Your task to perform on an android device: Open privacy settings Image 0: 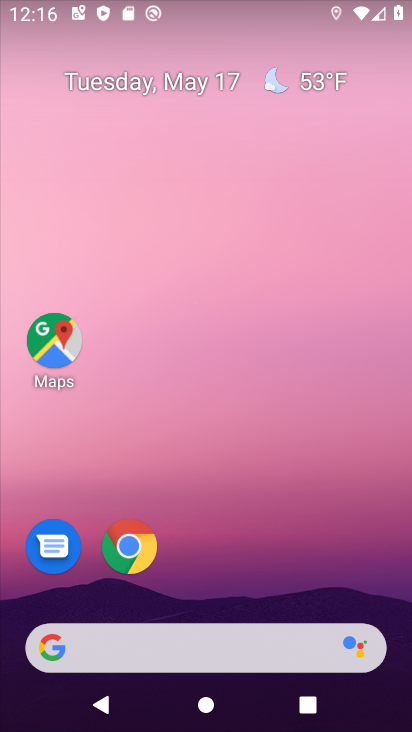
Step 0: click (139, 550)
Your task to perform on an android device: Open privacy settings Image 1: 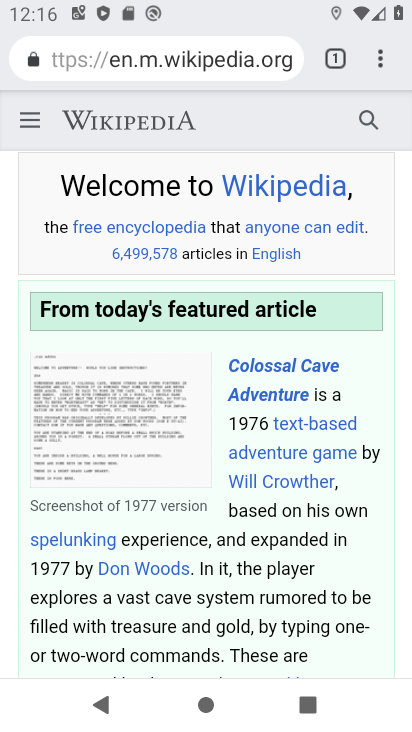
Step 1: click (376, 55)
Your task to perform on an android device: Open privacy settings Image 2: 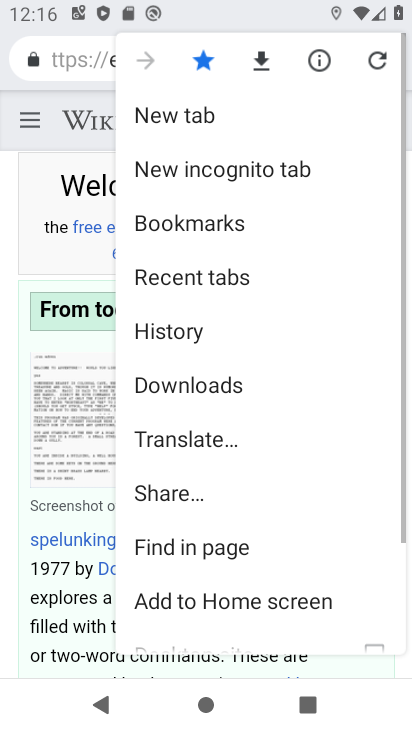
Step 2: drag from (209, 508) to (244, 90)
Your task to perform on an android device: Open privacy settings Image 3: 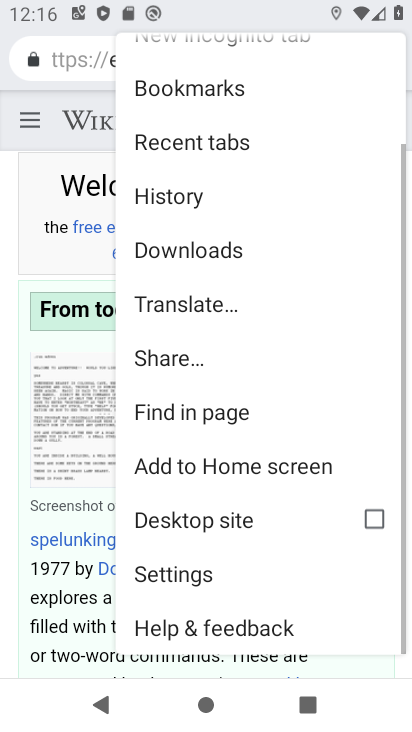
Step 3: click (214, 574)
Your task to perform on an android device: Open privacy settings Image 4: 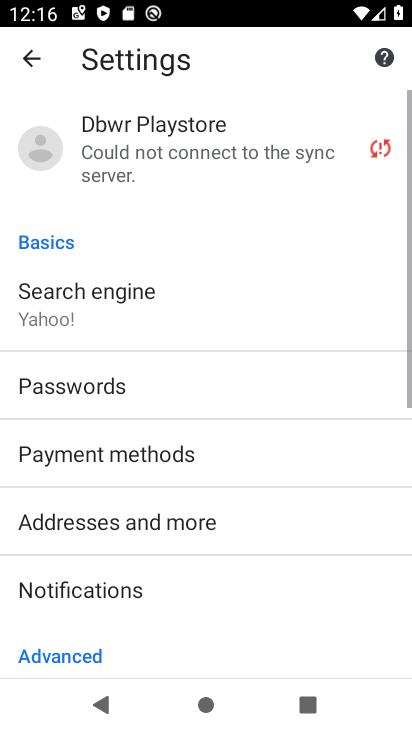
Step 4: drag from (207, 570) to (220, 256)
Your task to perform on an android device: Open privacy settings Image 5: 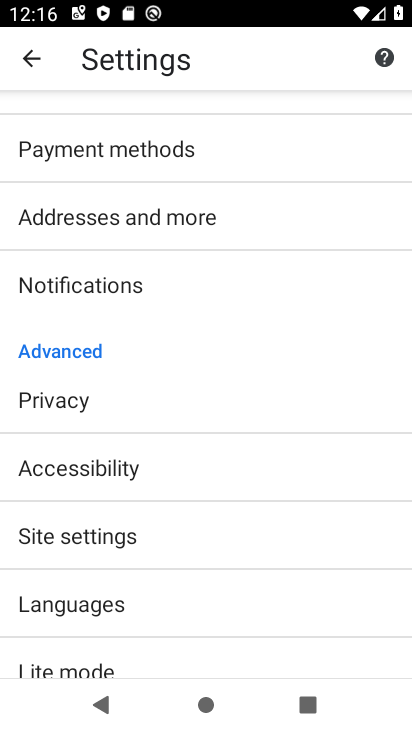
Step 5: click (101, 406)
Your task to perform on an android device: Open privacy settings Image 6: 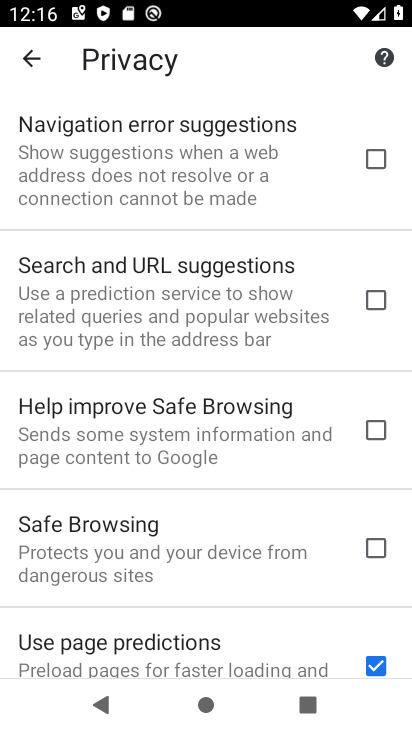
Step 6: task complete